Your task to perform on an android device: turn off smart reply in the gmail app Image 0: 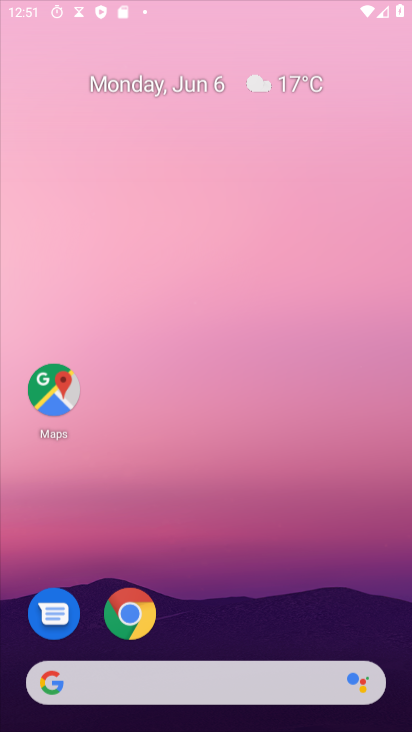
Step 0: drag from (219, 454) to (262, 148)
Your task to perform on an android device: turn off smart reply in the gmail app Image 1: 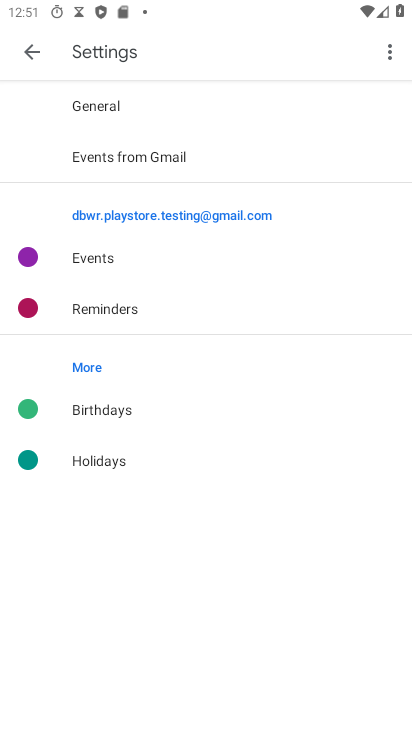
Step 1: press home button
Your task to perform on an android device: turn off smart reply in the gmail app Image 2: 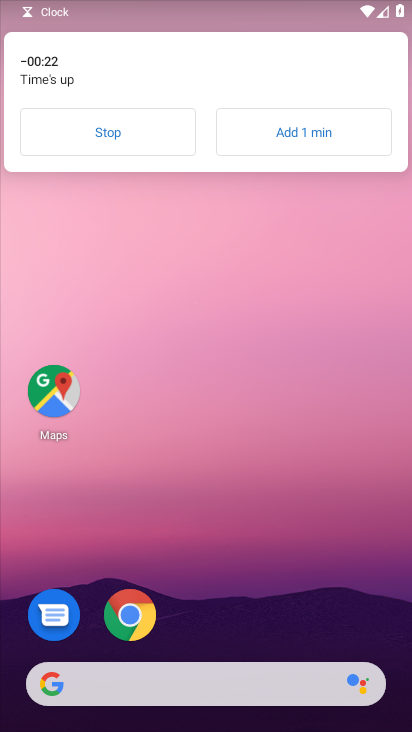
Step 2: drag from (208, 612) to (197, 0)
Your task to perform on an android device: turn off smart reply in the gmail app Image 3: 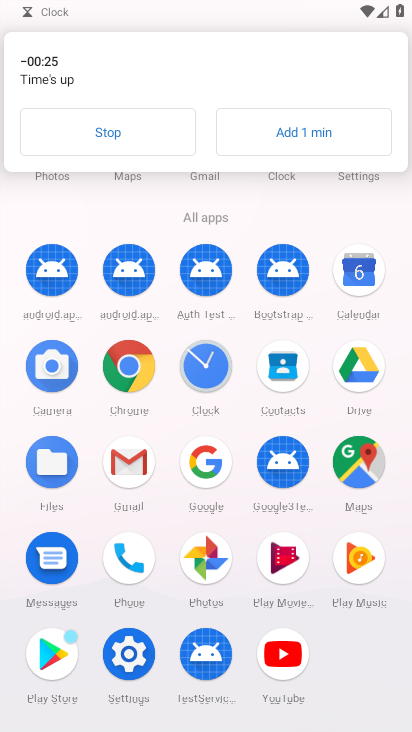
Step 3: click (129, 451)
Your task to perform on an android device: turn off smart reply in the gmail app Image 4: 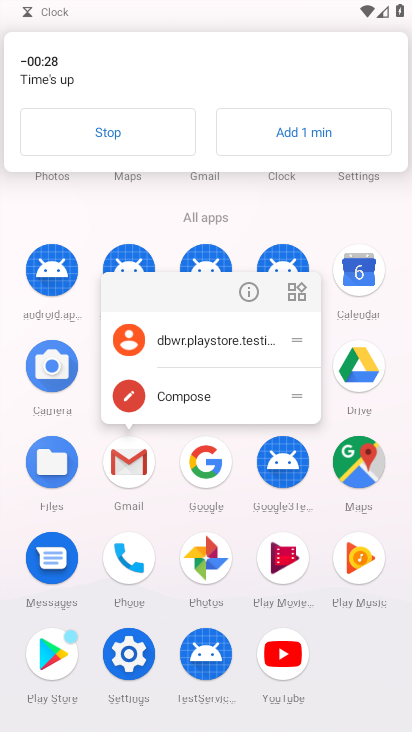
Step 4: click (244, 305)
Your task to perform on an android device: turn off smart reply in the gmail app Image 5: 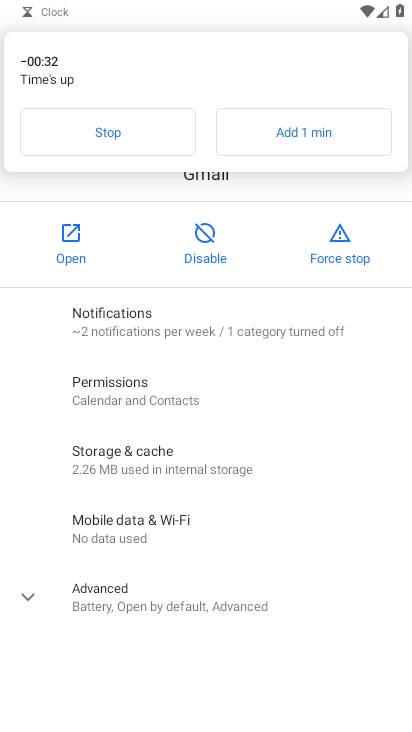
Step 5: click (128, 142)
Your task to perform on an android device: turn off smart reply in the gmail app Image 6: 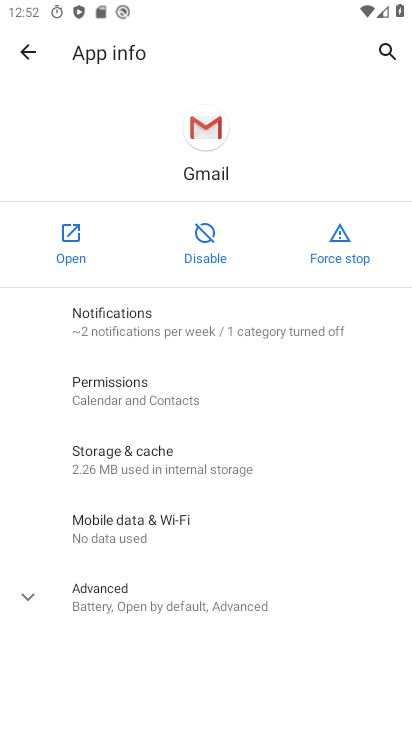
Step 6: click (80, 258)
Your task to perform on an android device: turn off smart reply in the gmail app Image 7: 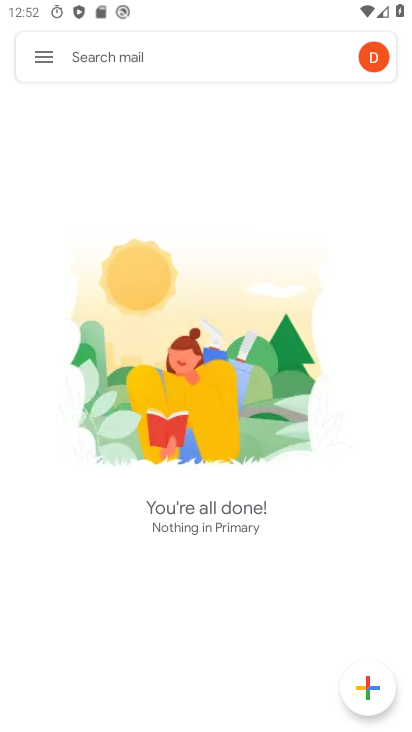
Step 7: drag from (153, 590) to (190, 406)
Your task to perform on an android device: turn off smart reply in the gmail app Image 8: 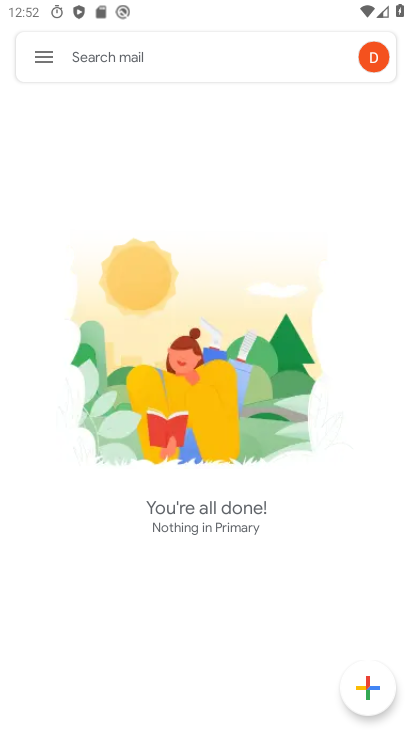
Step 8: click (45, 44)
Your task to perform on an android device: turn off smart reply in the gmail app Image 9: 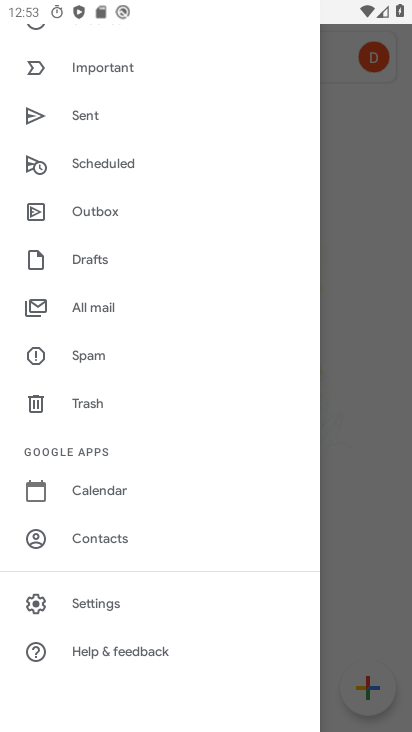
Step 9: click (93, 604)
Your task to perform on an android device: turn off smart reply in the gmail app Image 10: 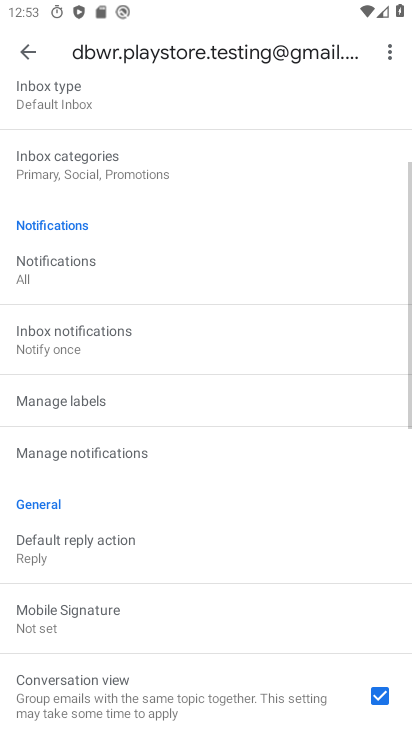
Step 10: drag from (192, 285) to (235, 577)
Your task to perform on an android device: turn off smart reply in the gmail app Image 11: 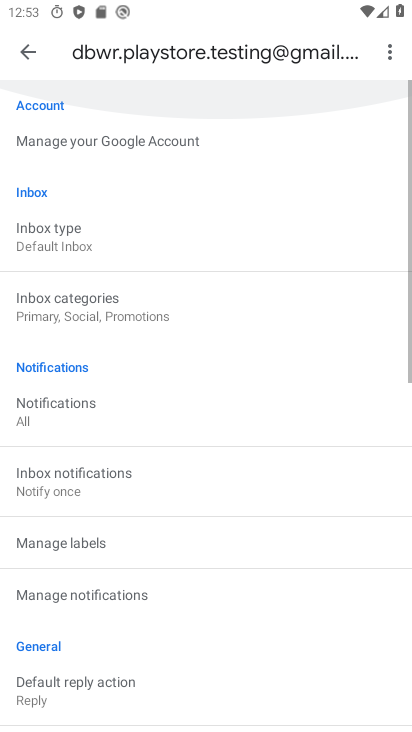
Step 11: drag from (235, 578) to (293, 4)
Your task to perform on an android device: turn off smart reply in the gmail app Image 12: 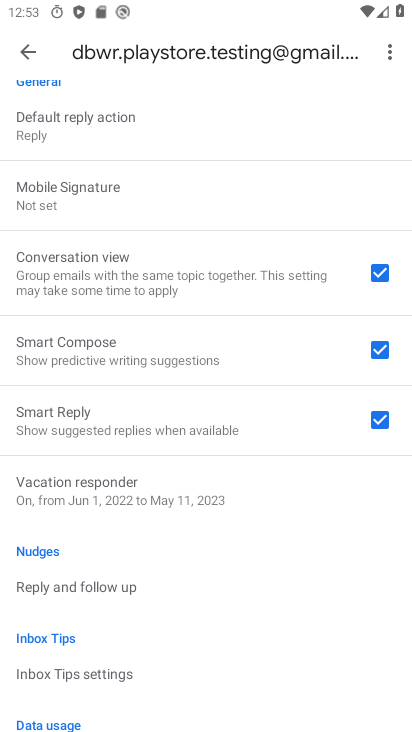
Step 12: click (370, 416)
Your task to perform on an android device: turn off smart reply in the gmail app Image 13: 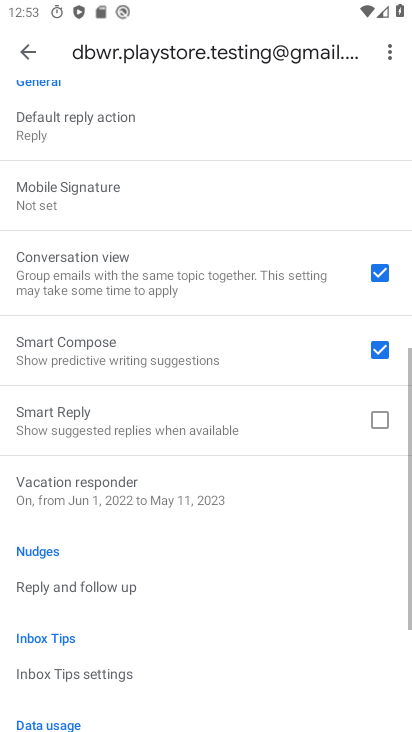
Step 13: task complete